Your task to perform on an android device: delete location history Image 0: 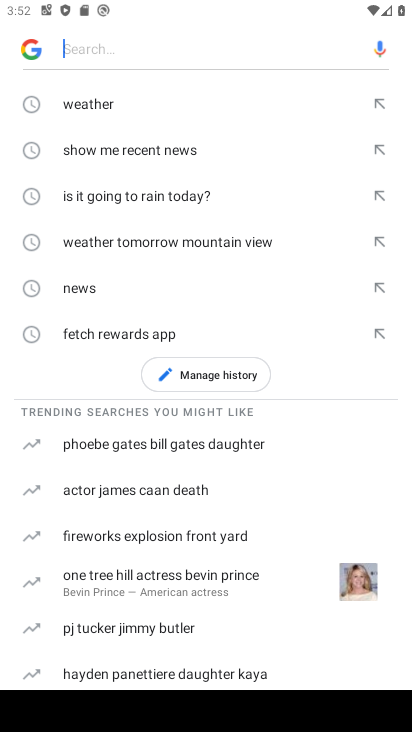
Step 0: press home button
Your task to perform on an android device: delete location history Image 1: 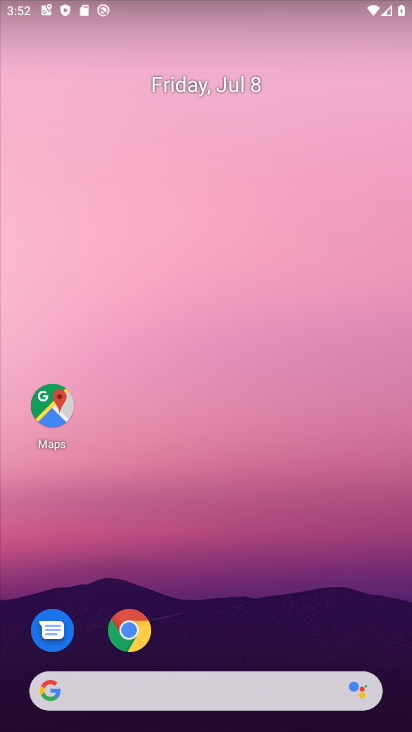
Step 1: drag from (268, 512) to (246, 85)
Your task to perform on an android device: delete location history Image 2: 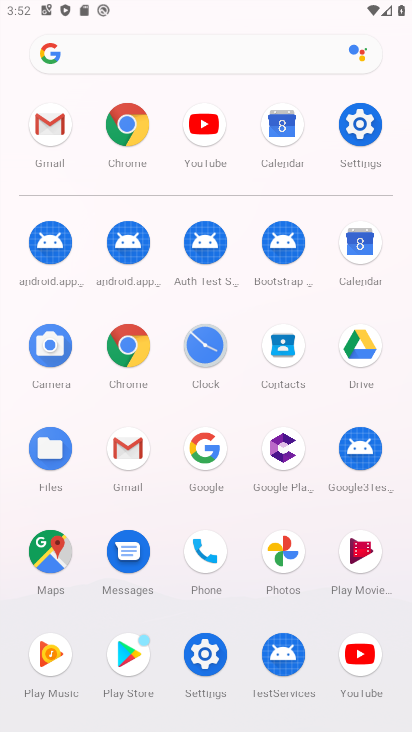
Step 2: click (342, 125)
Your task to perform on an android device: delete location history Image 3: 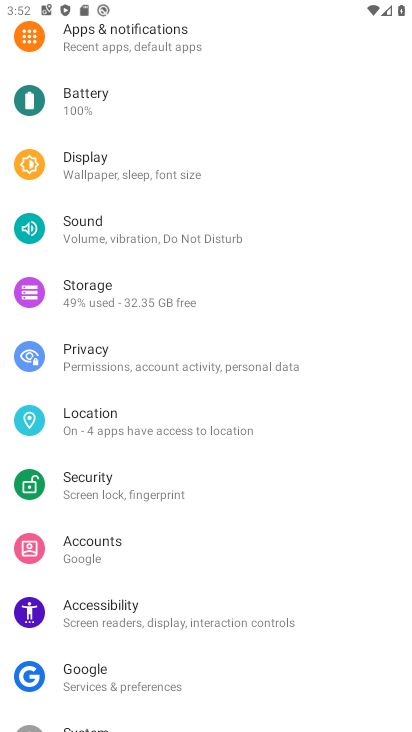
Step 3: click (226, 438)
Your task to perform on an android device: delete location history Image 4: 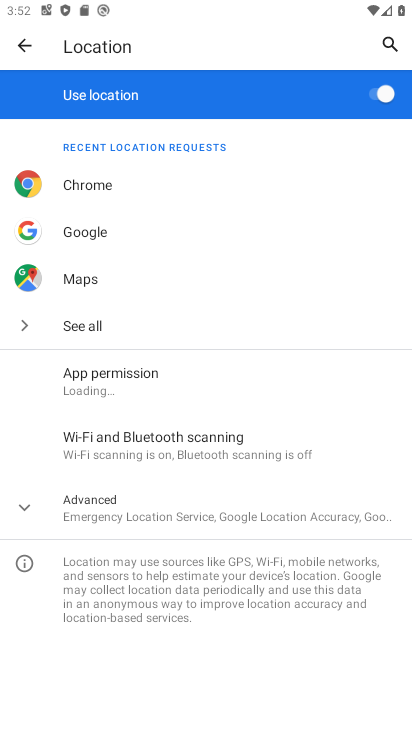
Step 4: drag from (261, 437) to (233, 498)
Your task to perform on an android device: delete location history Image 5: 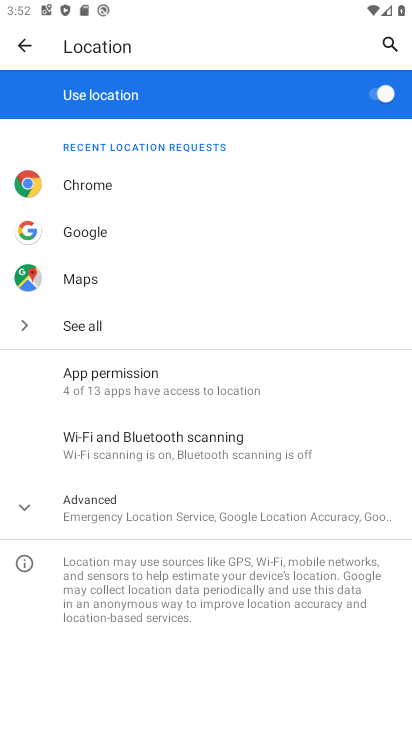
Step 5: click (233, 498)
Your task to perform on an android device: delete location history Image 6: 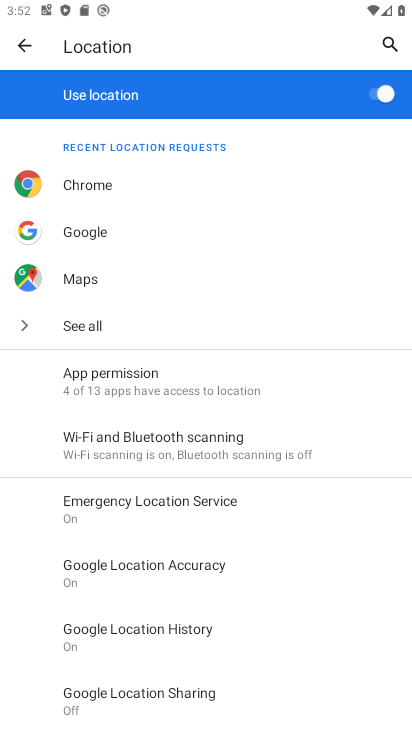
Step 6: click (228, 628)
Your task to perform on an android device: delete location history Image 7: 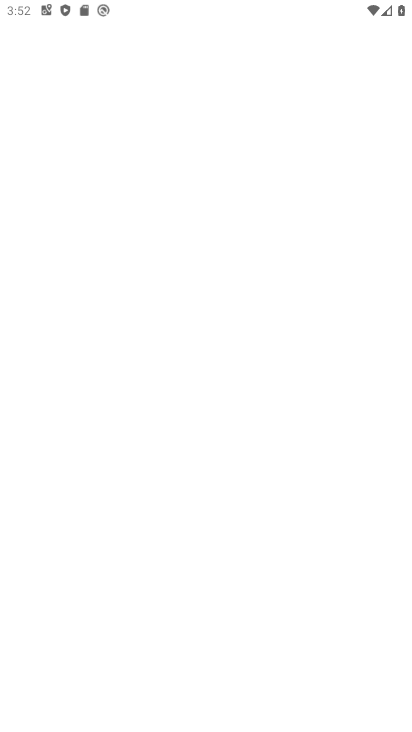
Step 7: task complete